Your task to perform on an android device: toggle translation in the chrome app Image 0: 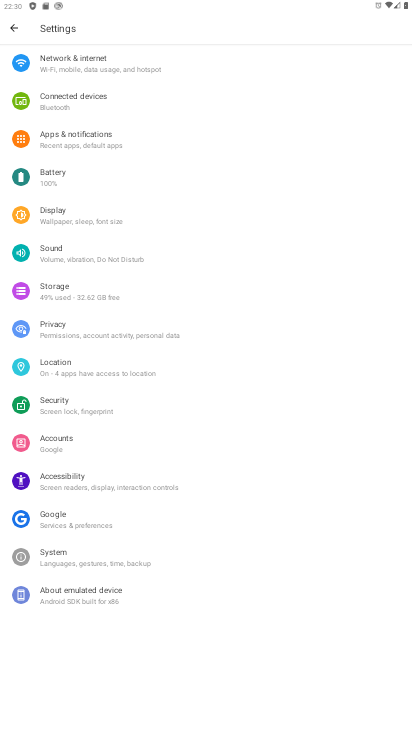
Step 0: press home button
Your task to perform on an android device: toggle translation in the chrome app Image 1: 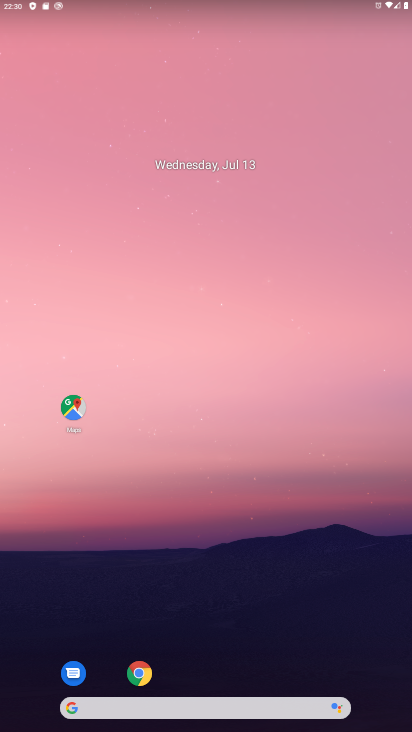
Step 1: drag from (231, 695) to (238, 214)
Your task to perform on an android device: toggle translation in the chrome app Image 2: 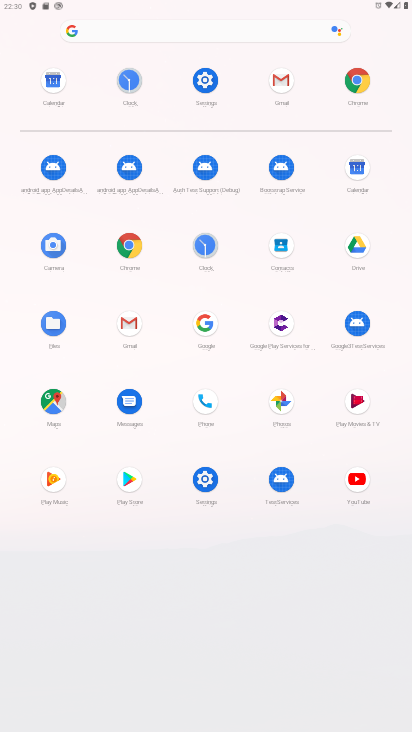
Step 2: click (357, 84)
Your task to perform on an android device: toggle translation in the chrome app Image 3: 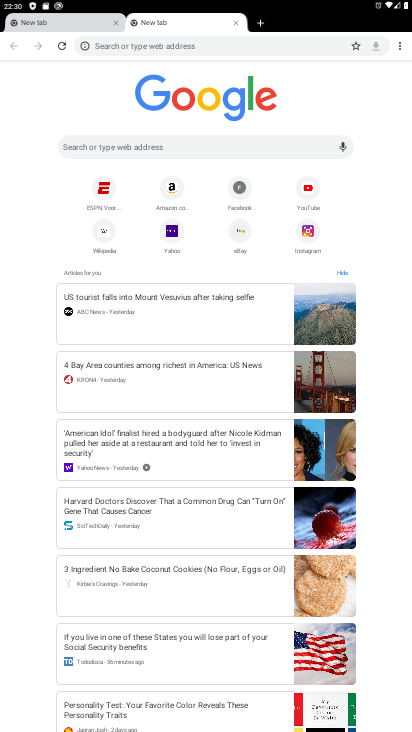
Step 3: click (399, 45)
Your task to perform on an android device: toggle translation in the chrome app Image 4: 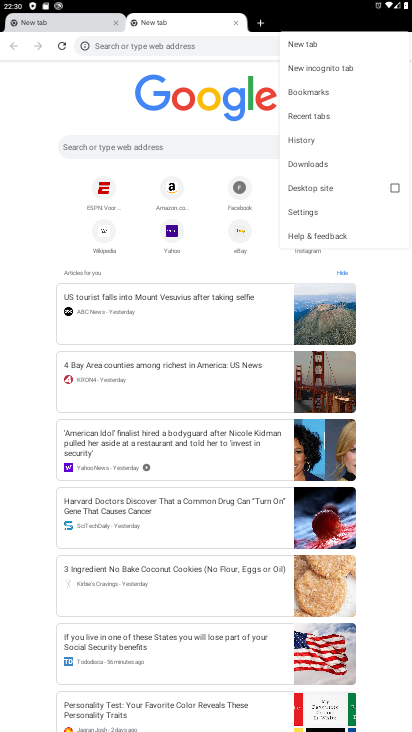
Step 4: click (318, 209)
Your task to perform on an android device: toggle translation in the chrome app Image 5: 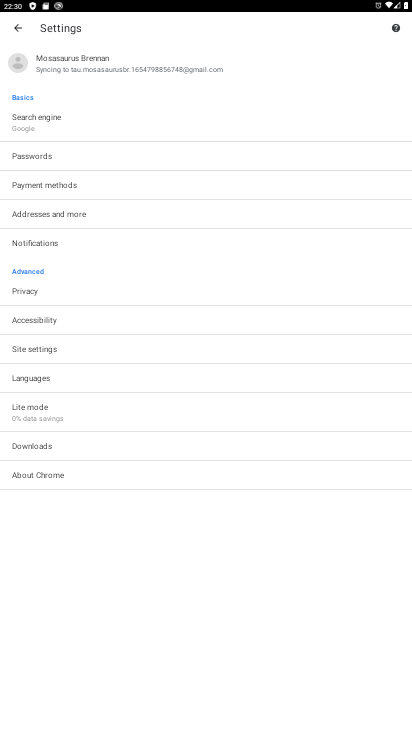
Step 5: click (35, 373)
Your task to perform on an android device: toggle translation in the chrome app Image 6: 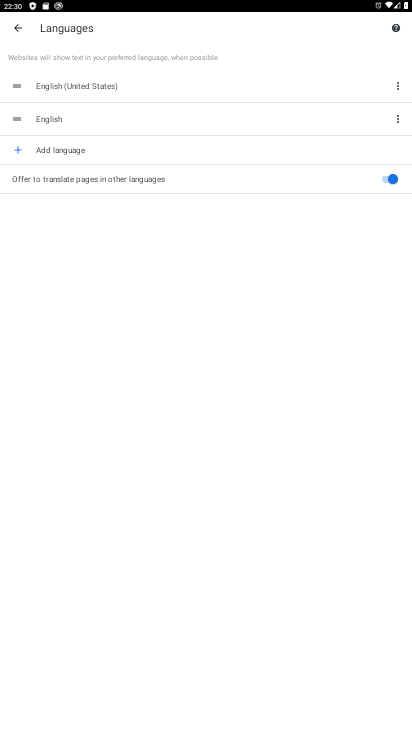
Step 6: click (385, 172)
Your task to perform on an android device: toggle translation in the chrome app Image 7: 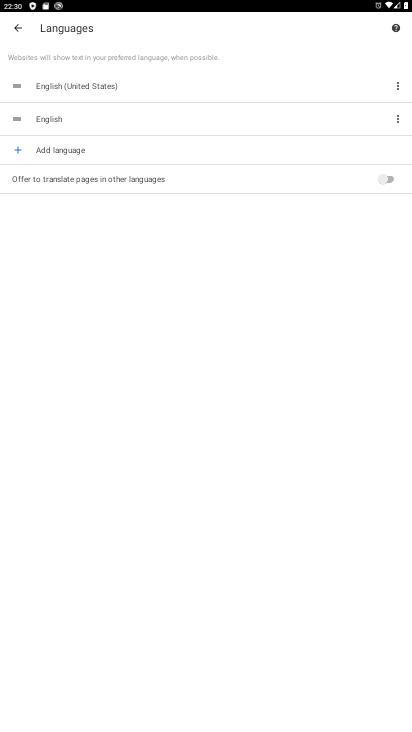
Step 7: task complete